Your task to perform on an android device: change notification settings in the gmail app Image 0: 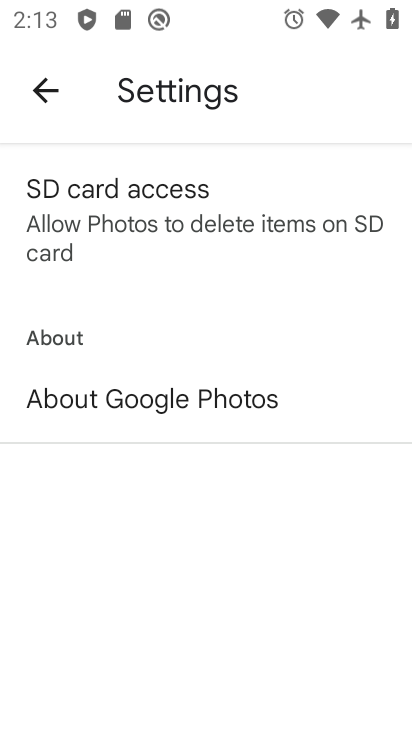
Step 0: press home button
Your task to perform on an android device: change notification settings in the gmail app Image 1: 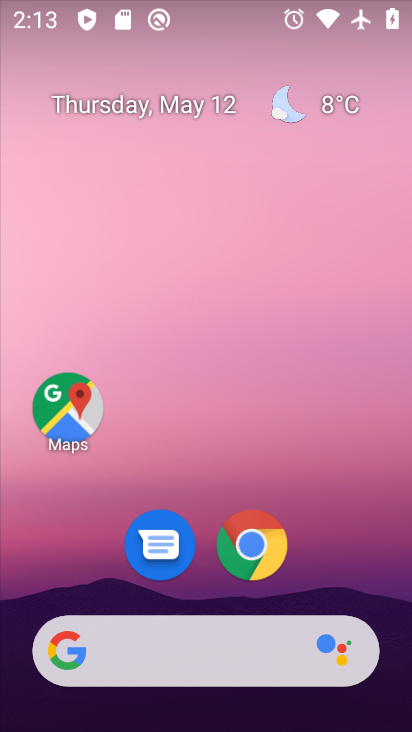
Step 1: drag from (396, 623) to (317, 86)
Your task to perform on an android device: change notification settings in the gmail app Image 2: 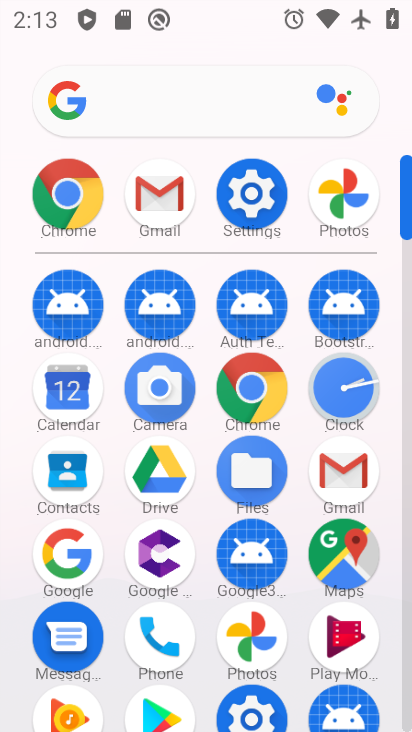
Step 2: click (409, 701)
Your task to perform on an android device: change notification settings in the gmail app Image 3: 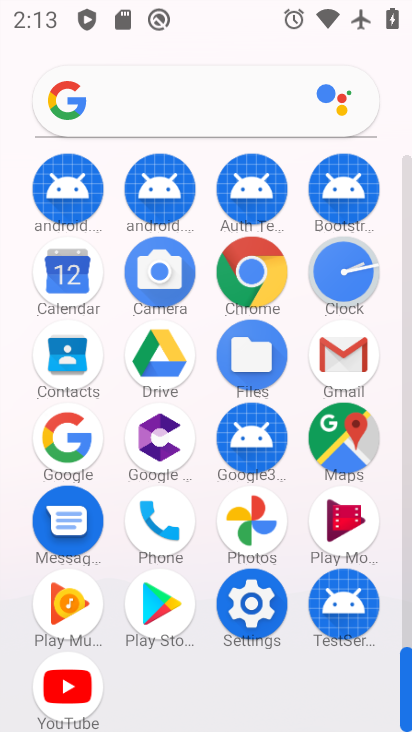
Step 3: click (339, 348)
Your task to perform on an android device: change notification settings in the gmail app Image 4: 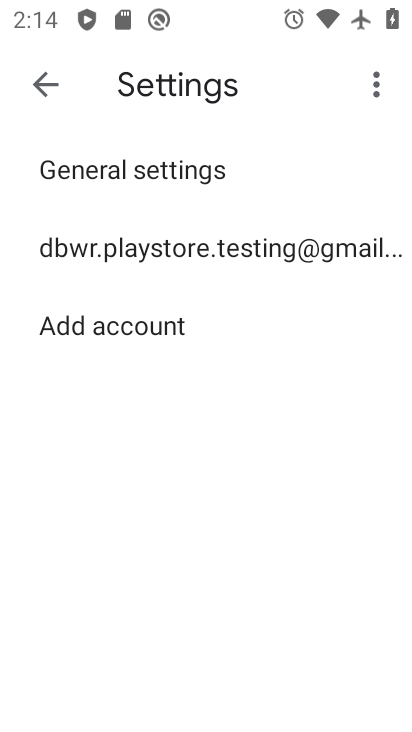
Step 4: click (231, 258)
Your task to perform on an android device: change notification settings in the gmail app Image 5: 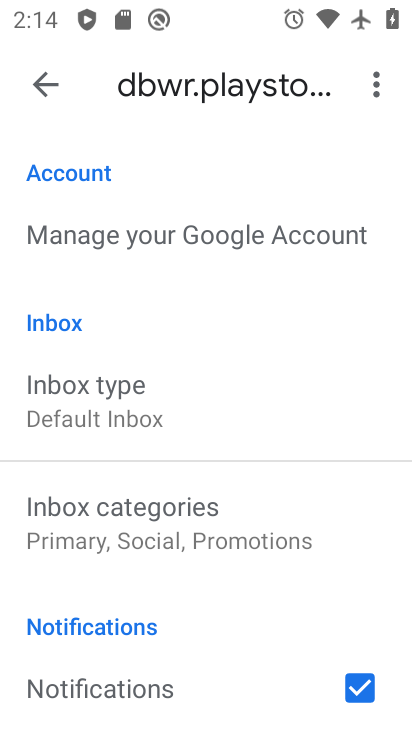
Step 5: drag from (277, 611) to (206, 188)
Your task to perform on an android device: change notification settings in the gmail app Image 6: 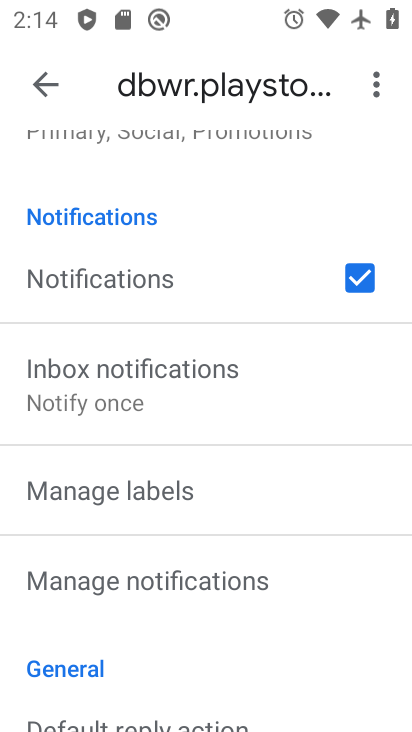
Step 6: click (125, 590)
Your task to perform on an android device: change notification settings in the gmail app Image 7: 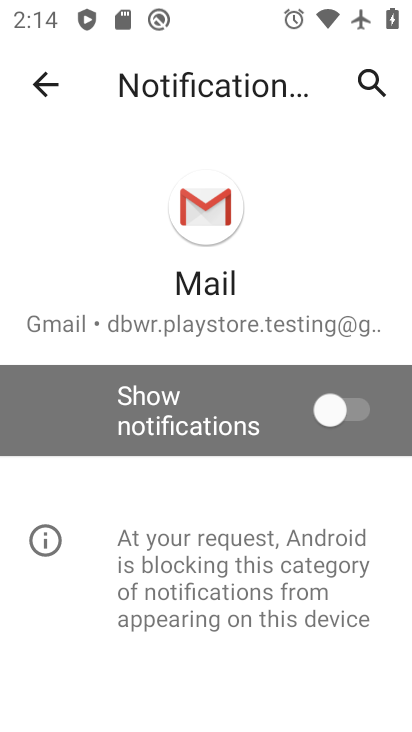
Step 7: click (357, 409)
Your task to perform on an android device: change notification settings in the gmail app Image 8: 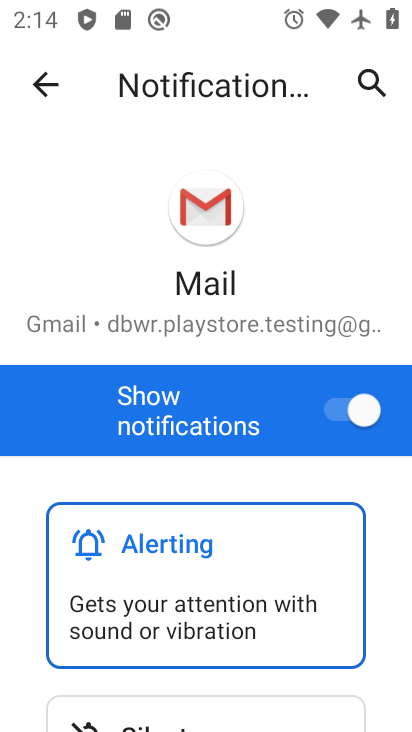
Step 8: task complete